Your task to perform on an android device: create a new album in the google photos Image 0: 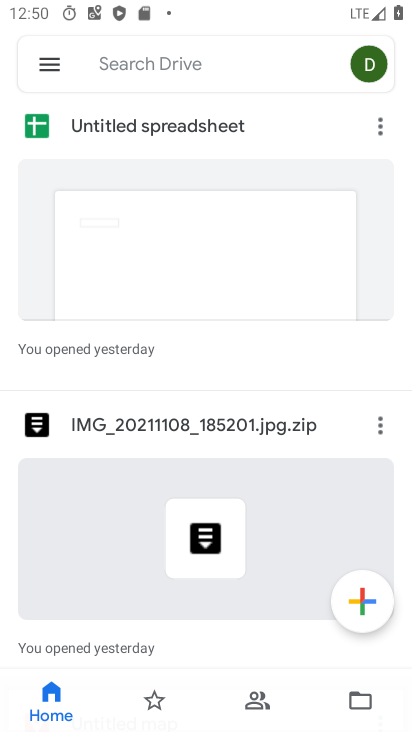
Step 0: press home button
Your task to perform on an android device: create a new album in the google photos Image 1: 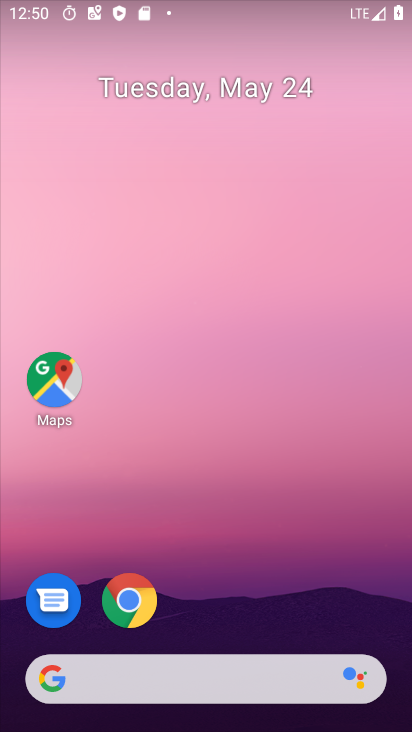
Step 1: drag from (267, 614) to (240, 207)
Your task to perform on an android device: create a new album in the google photos Image 2: 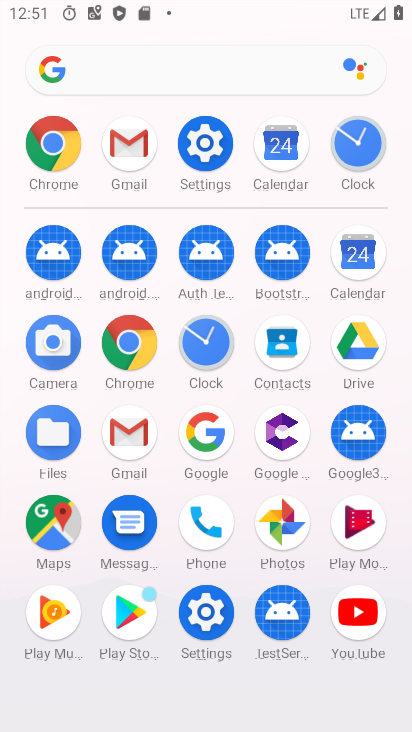
Step 2: click (272, 529)
Your task to perform on an android device: create a new album in the google photos Image 3: 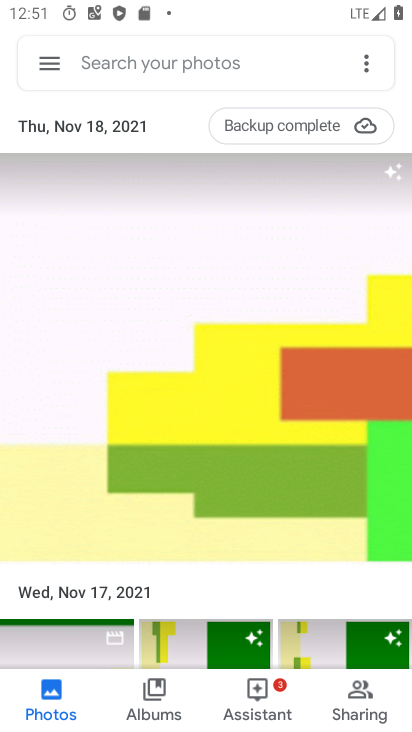
Step 3: click (156, 707)
Your task to perform on an android device: create a new album in the google photos Image 4: 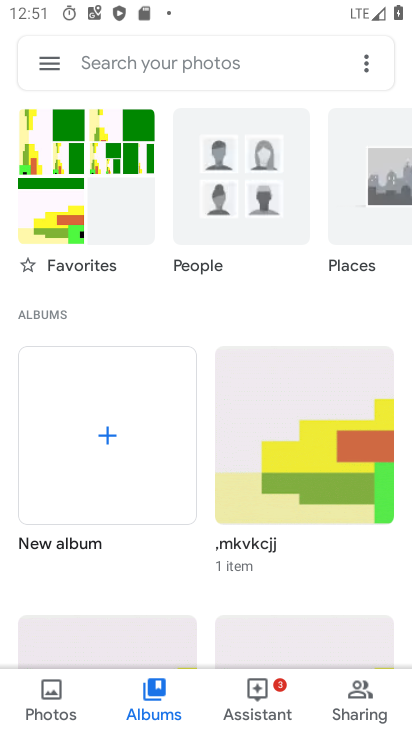
Step 4: click (363, 65)
Your task to perform on an android device: create a new album in the google photos Image 5: 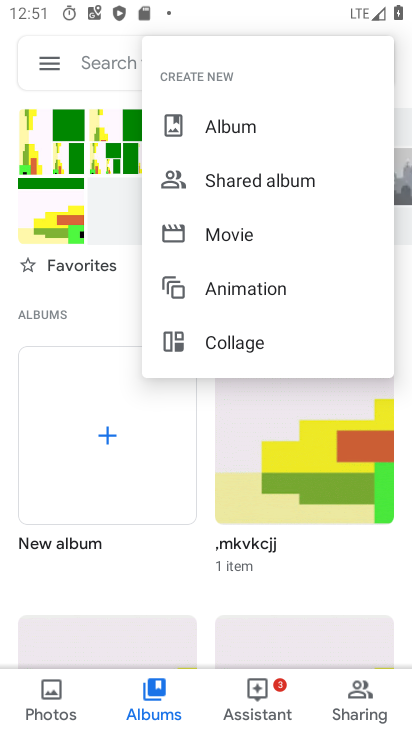
Step 5: click (236, 132)
Your task to perform on an android device: create a new album in the google photos Image 6: 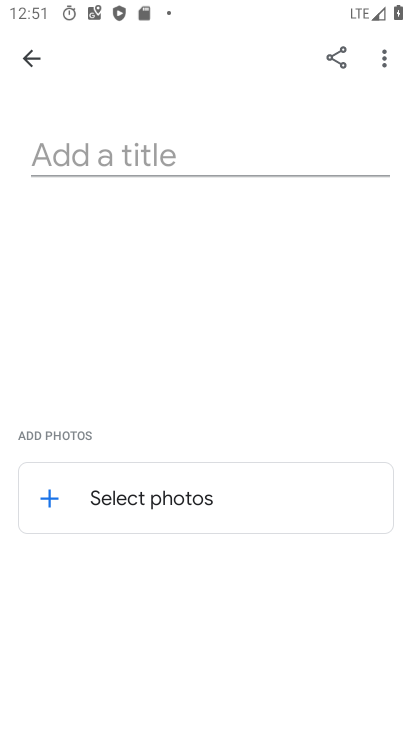
Step 6: click (207, 149)
Your task to perform on an android device: create a new album in the google photos Image 7: 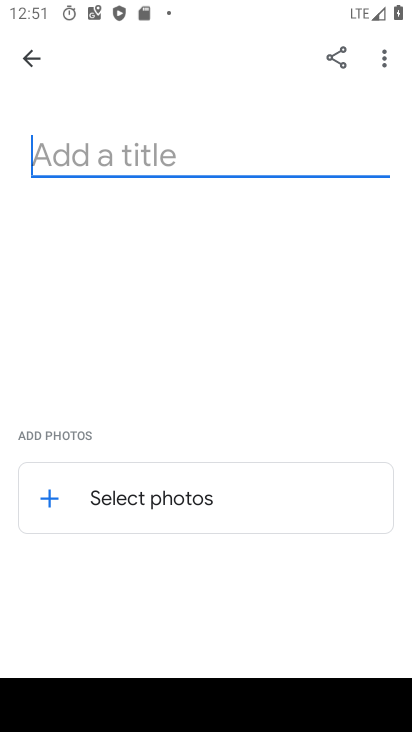
Step 7: click (179, 171)
Your task to perform on an android device: create a new album in the google photos Image 8: 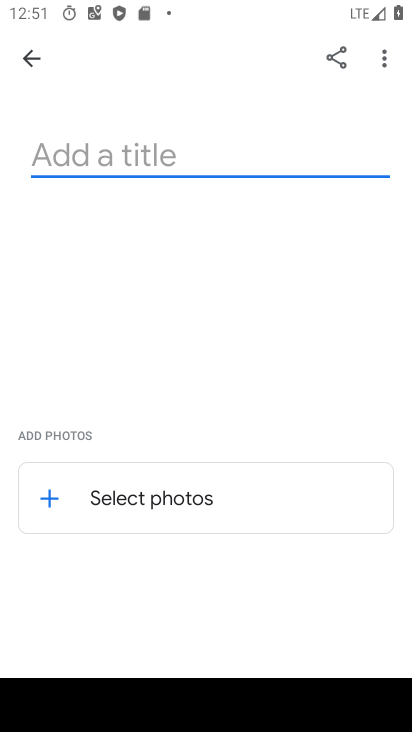
Step 8: type "bppm"
Your task to perform on an android device: create a new album in the google photos Image 9: 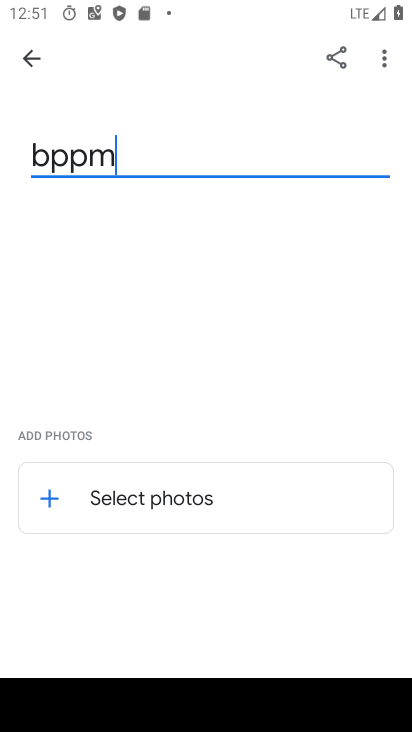
Step 9: type ""
Your task to perform on an android device: create a new album in the google photos Image 10: 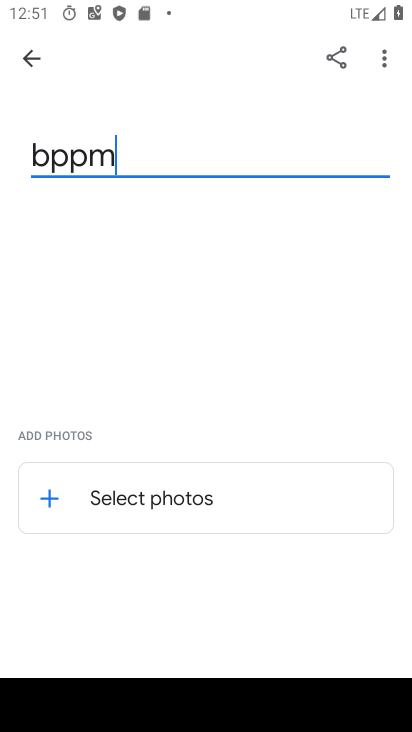
Step 10: click (186, 509)
Your task to perform on an android device: create a new album in the google photos Image 11: 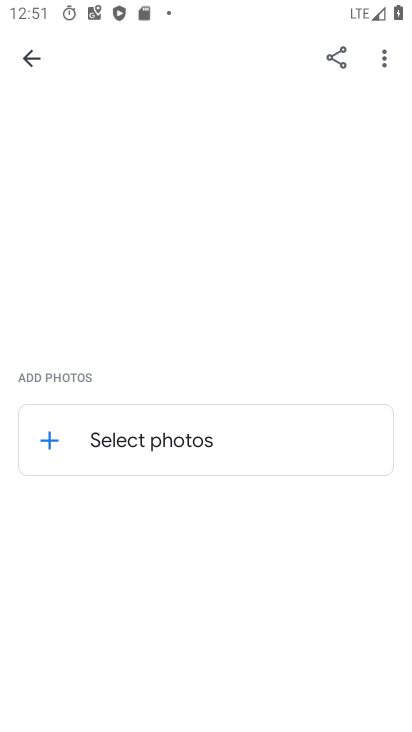
Step 11: click (155, 431)
Your task to perform on an android device: create a new album in the google photos Image 12: 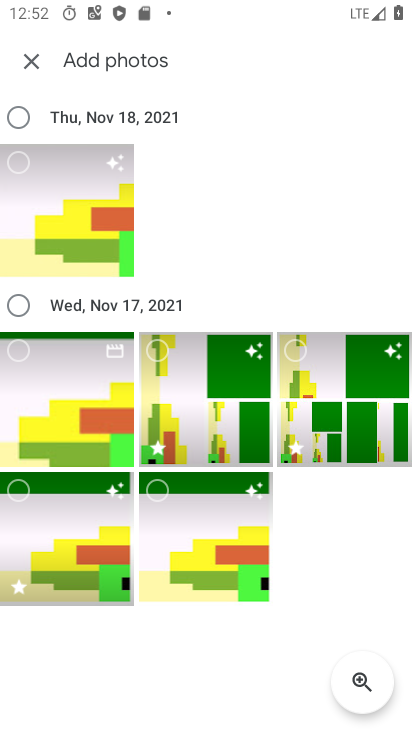
Step 12: click (62, 238)
Your task to perform on an android device: create a new album in the google photos Image 13: 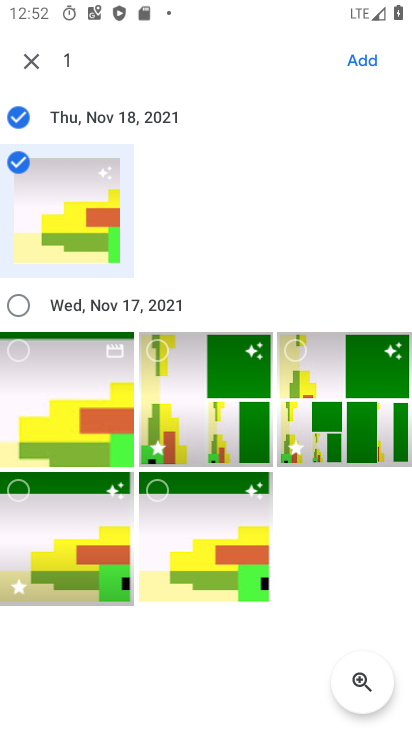
Step 13: click (354, 69)
Your task to perform on an android device: create a new album in the google photos Image 14: 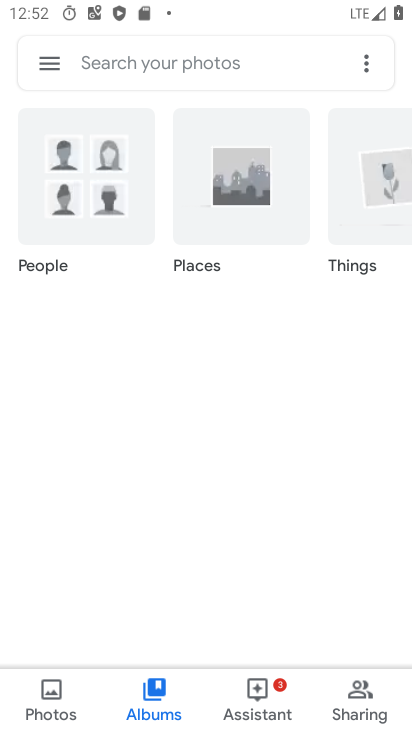
Step 14: task complete